Your task to perform on an android device: toggle javascript in the chrome app Image 0: 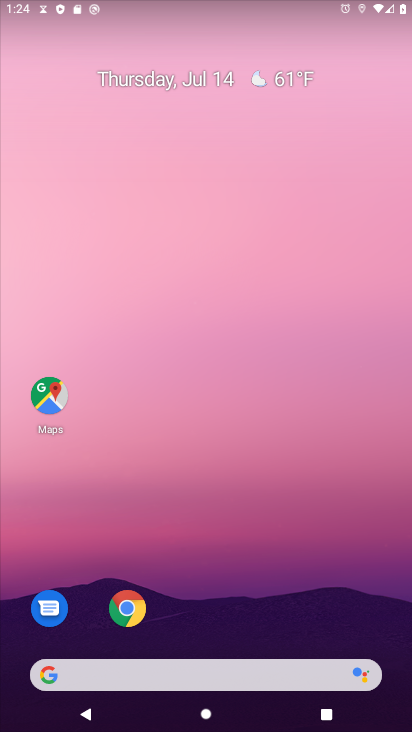
Step 0: click (121, 604)
Your task to perform on an android device: toggle javascript in the chrome app Image 1: 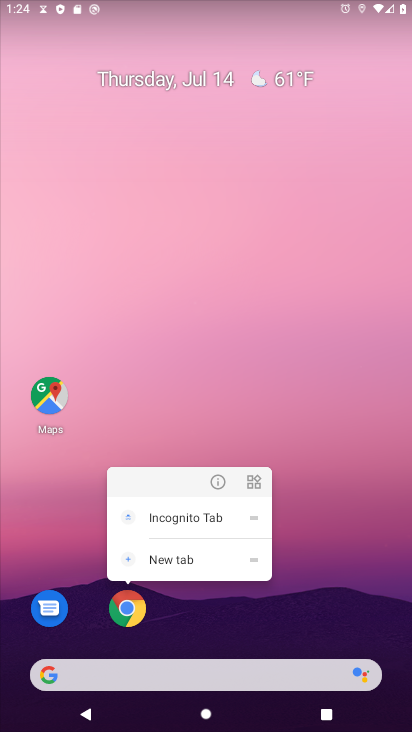
Step 1: click (118, 616)
Your task to perform on an android device: toggle javascript in the chrome app Image 2: 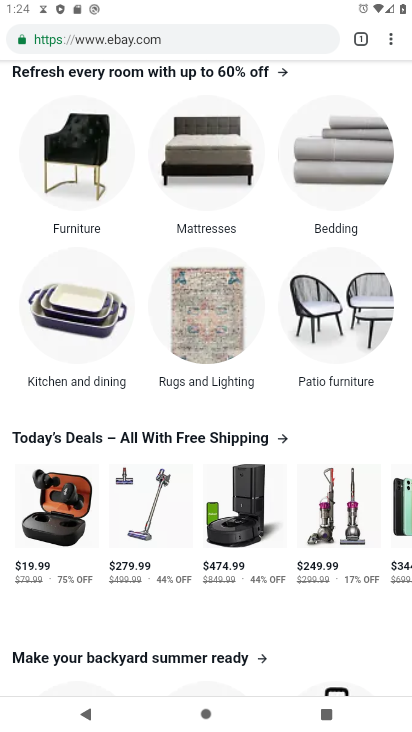
Step 2: click (388, 42)
Your task to perform on an android device: toggle javascript in the chrome app Image 3: 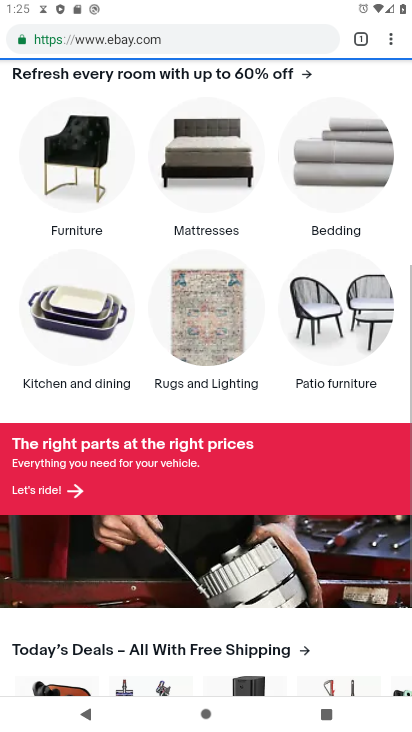
Step 3: click (389, 43)
Your task to perform on an android device: toggle javascript in the chrome app Image 4: 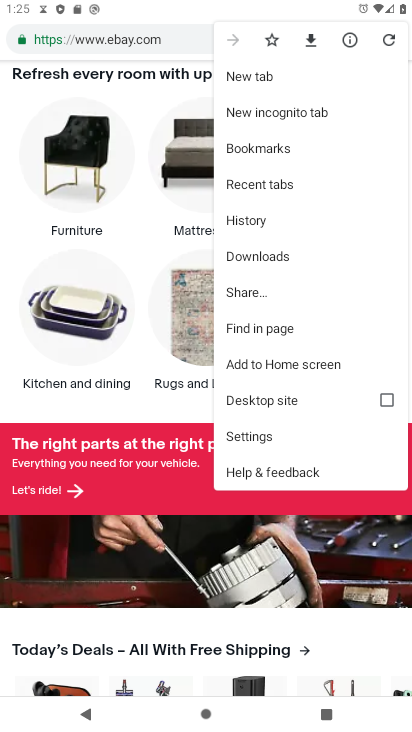
Step 4: click (236, 431)
Your task to perform on an android device: toggle javascript in the chrome app Image 5: 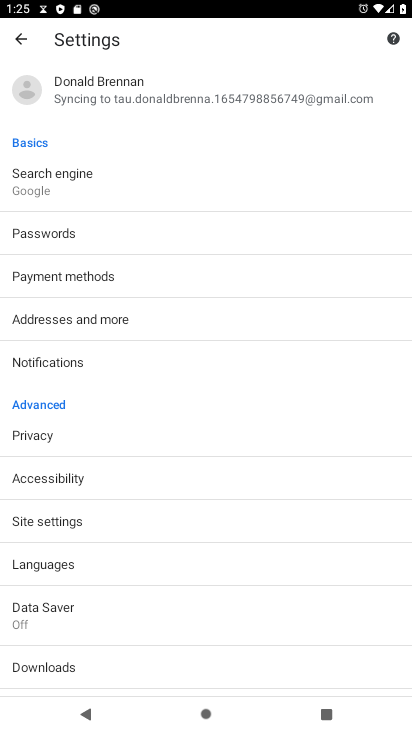
Step 5: click (34, 518)
Your task to perform on an android device: toggle javascript in the chrome app Image 6: 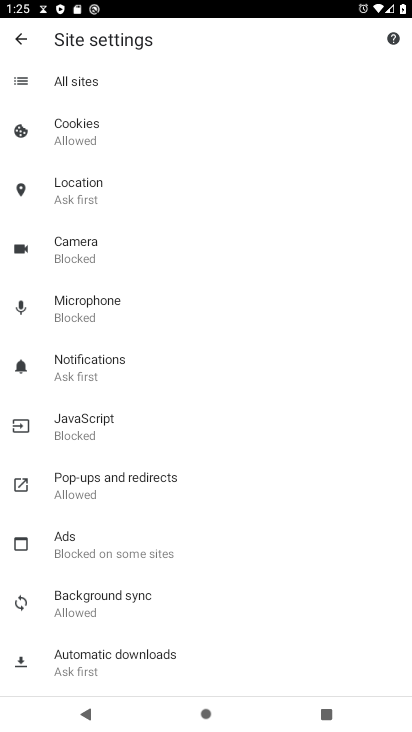
Step 6: click (68, 425)
Your task to perform on an android device: toggle javascript in the chrome app Image 7: 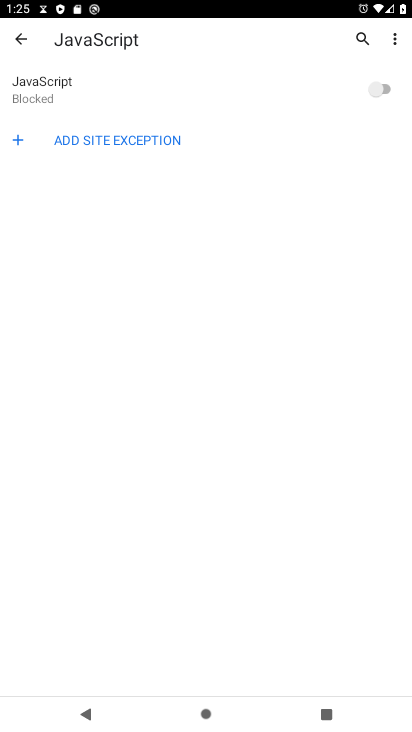
Step 7: click (387, 91)
Your task to perform on an android device: toggle javascript in the chrome app Image 8: 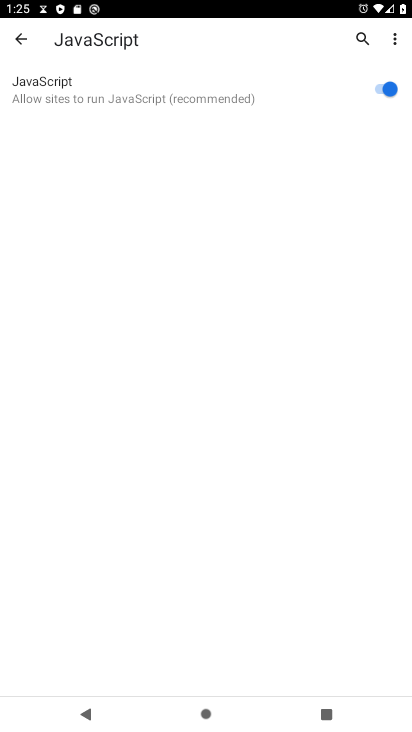
Step 8: task complete